Your task to perform on an android device: change notifications settings Image 0: 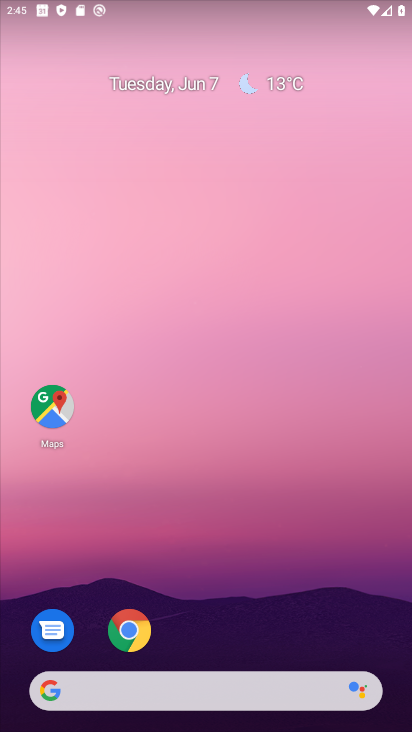
Step 0: drag from (286, 700) to (245, 188)
Your task to perform on an android device: change notifications settings Image 1: 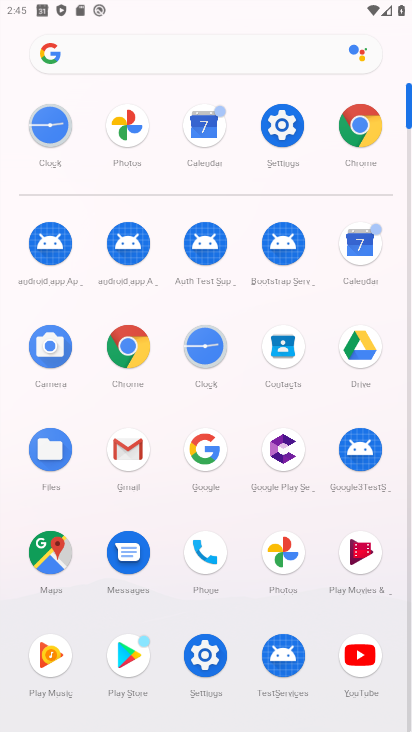
Step 1: click (270, 142)
Your task to perform on an android device: change notifications settings Image 2: 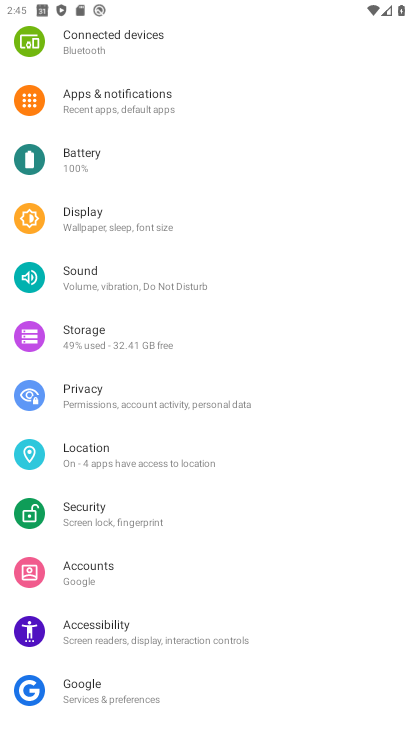
Step 2: click (111, 276)
Your task to perform on an android device: change notifications settings Image 3: 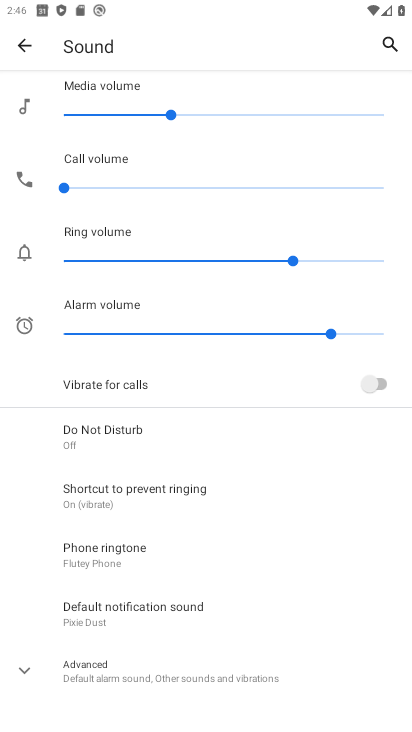
Step 3: click (375, 381)
Your task to perform on an android device: change notifications settings Image 4: 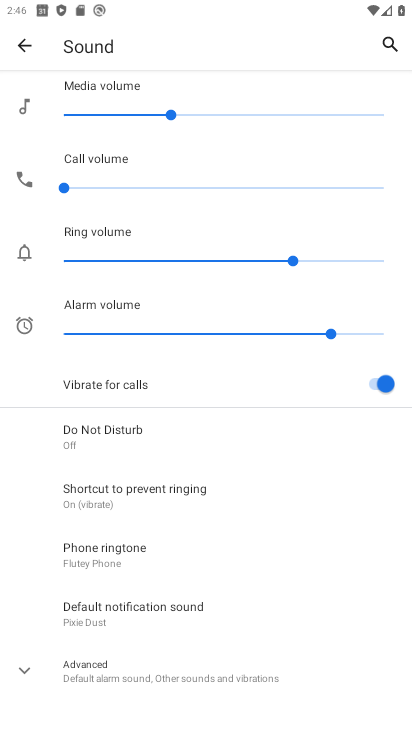
Step 4: click (92, 567)
Your task to perform on an android device: change notifications settings Image 5: 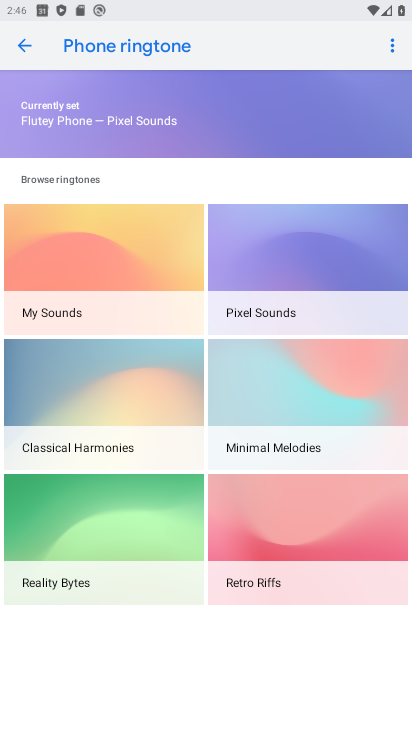
Step 5: click (251, 548)
Your task to perform on an android device: change notifications settings Image 6: 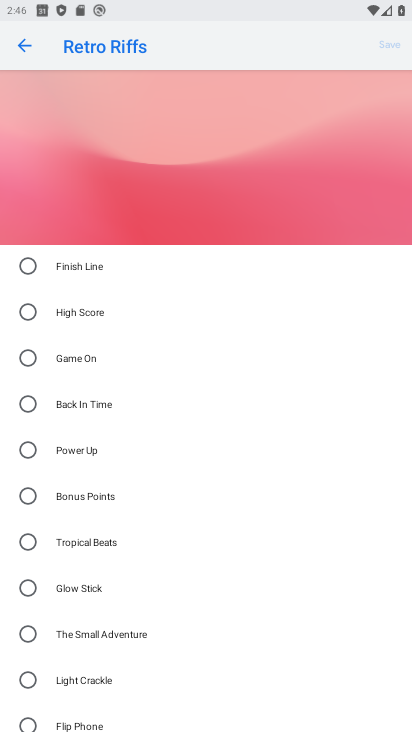
Step 6: click (67, 536)
Your task to perform on an android device: change notifications settings Image 7: 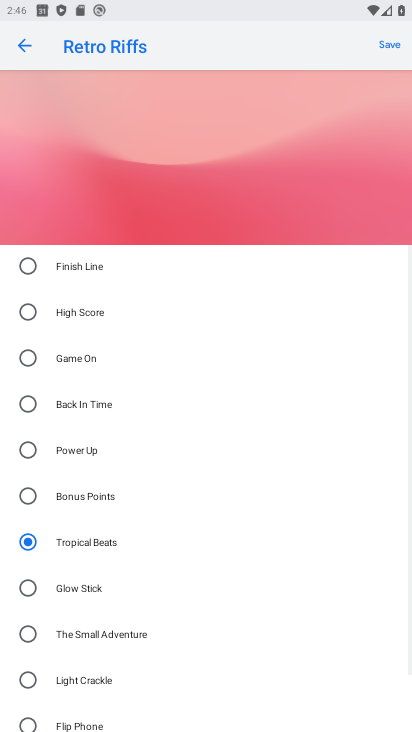
Step 7: click (388, 50)
Your task to perform on an android device: change notifications settings Image 8: 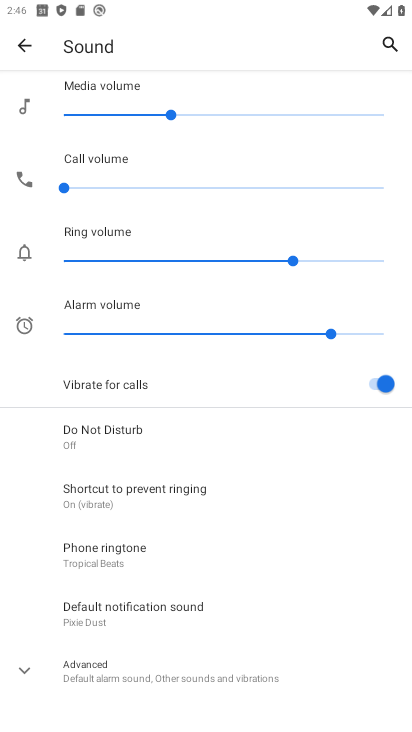
Step 8: task complete